Your task to perform on an android device: turn on priority inbox in the gmail app Image 0: 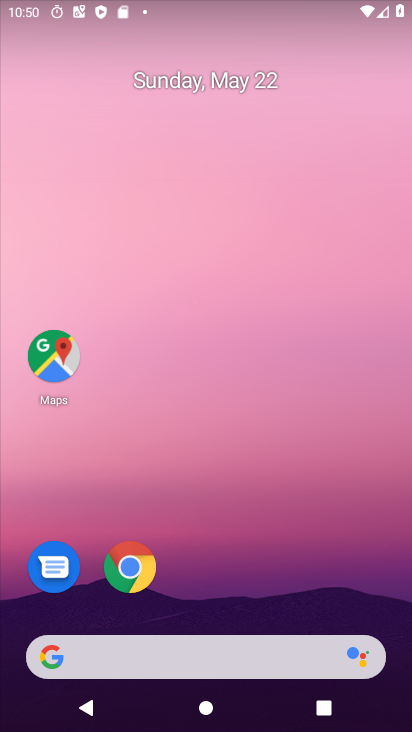
Step 0: drag from (348, 525) to (265, 145)
Your task to perform on an android device: turn on priority inbox in the gmail app Image 1: 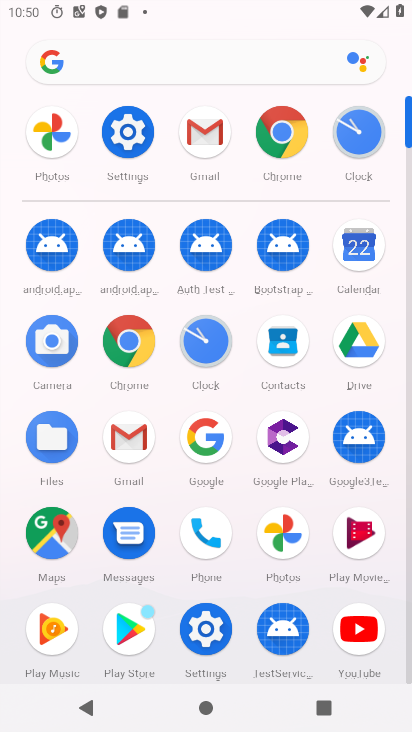
Step 1: click (122, 448)
Your task to perform on an android device: turn on priority inbox in the gmail app Image 2: 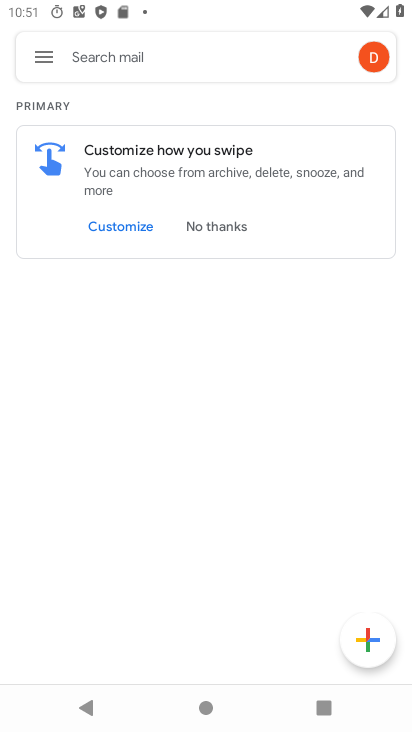
Step 2: click (33, 56)
Your task to perform on an android device: turn on priority inbox in the gmail app Image 3: 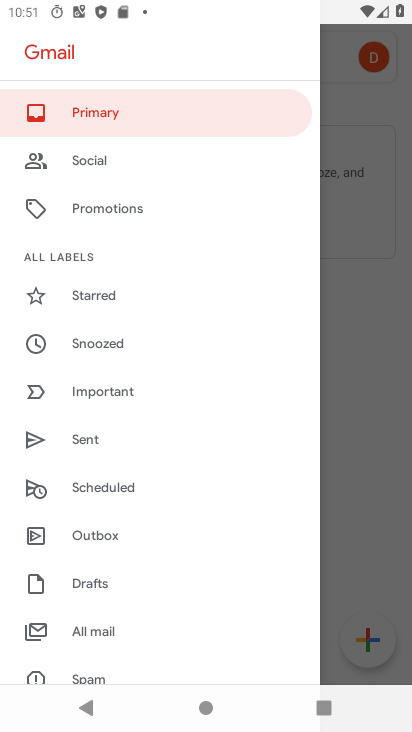
Step 3: drag from (127, 653) to (183, 153)
Your task to perform on an android device: turn on priority inbox in the gmail app Image 4: 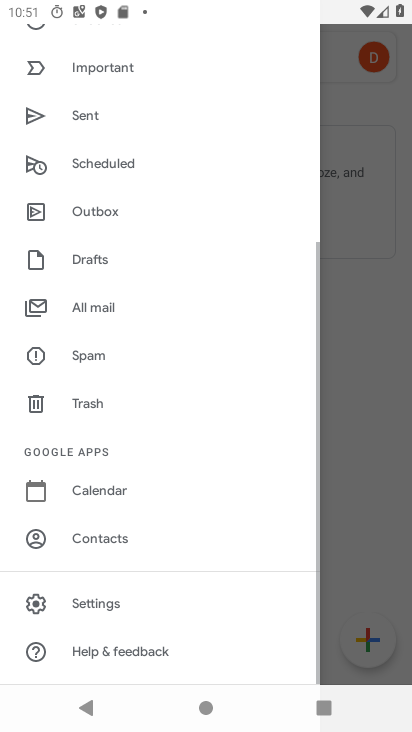
Step 4: click (107, 607)
Your task to perform on an android device: turn on priority inbox in the gmail app Image 5: 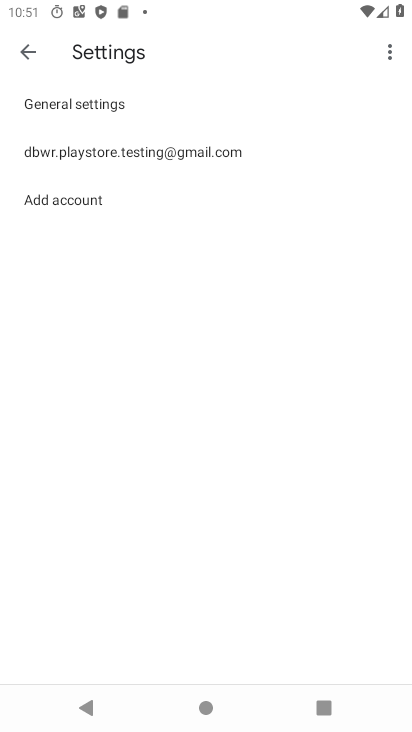
Step 5: click (225, 158)
Your task to perform on an android device: turn on priority inbox in the gmail app Image 6: 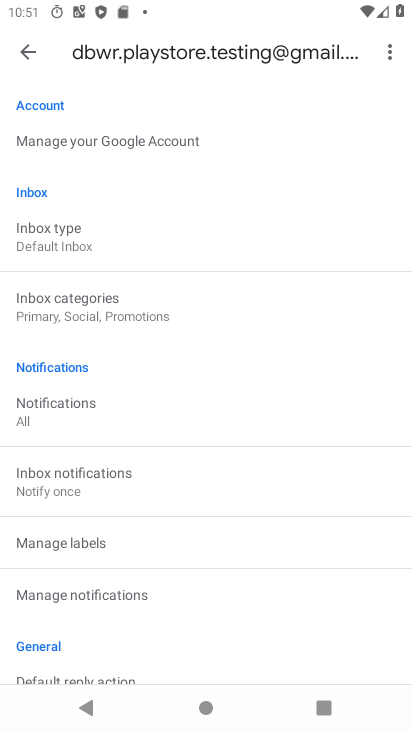
Step 6: click (88, 242)
Your task to perform on an android device: turn on priority inbox in the gmail app Image 7: 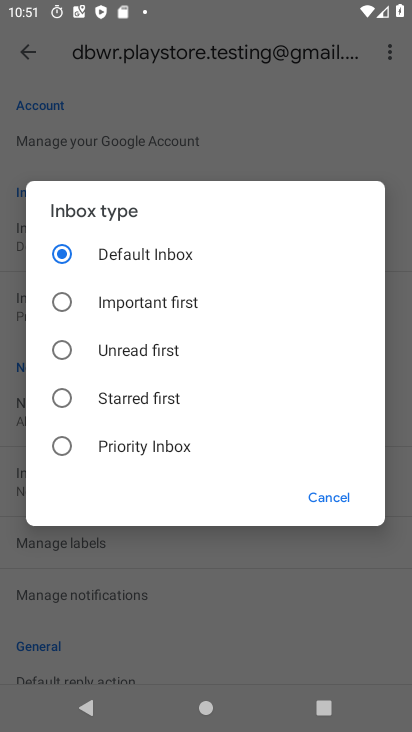
Step 7: click (64, 457)
Your task to perform on an android device: turn on priority inbox in the gmail app Image 8: 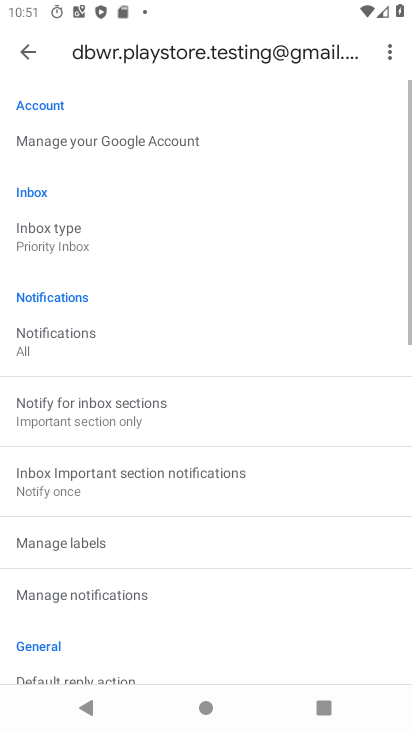
Step 8: task complete